Your task to perform on an android device: turn off picture-in-picture Image 0: 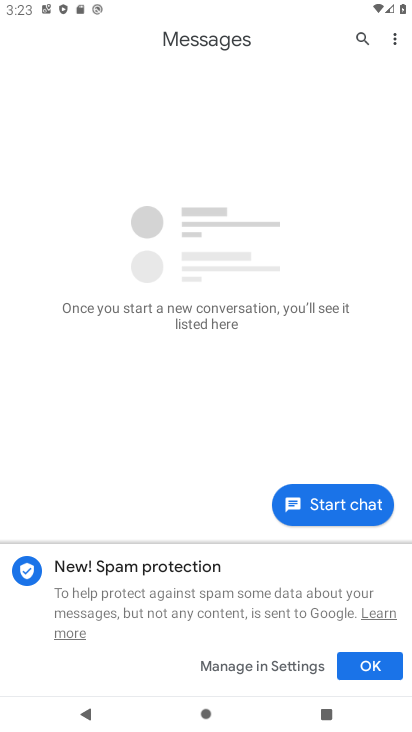
Step 0: press home button
Your task to perform on an android device: turn off picture-in-picture Image 1: 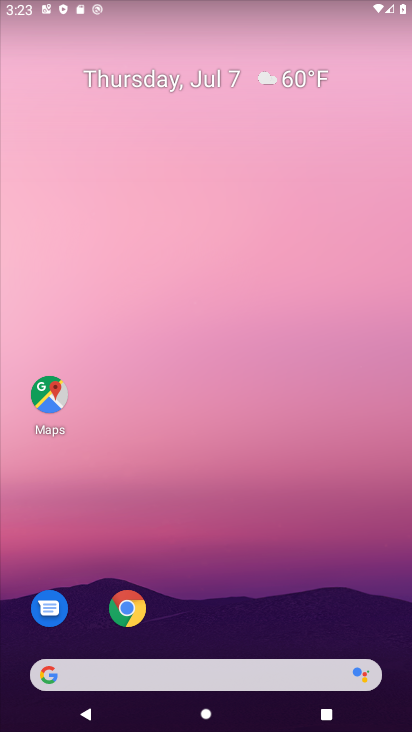
Step 1: click (127, 608)
Your task to perform on an android device: turn off picture-in-picture Image 2: 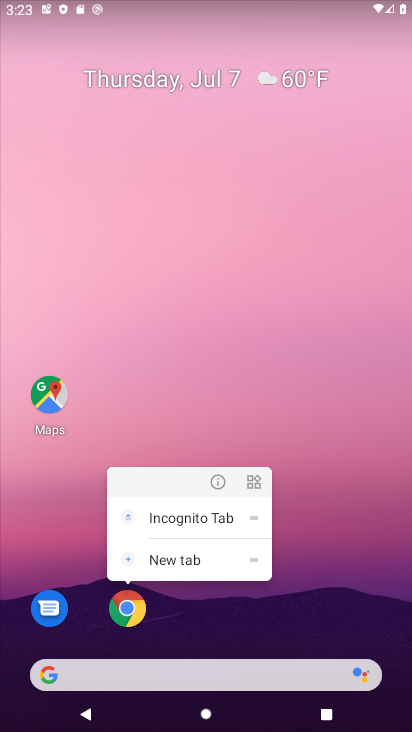
Step 2: click (221, 489)
Your task to perform on an android device: turn off picture-in-picture Image 3: 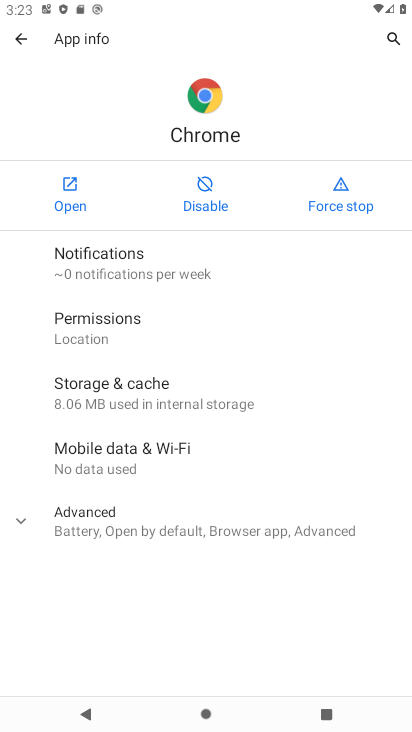
Step 3: click (145, 521)
Your task to perform on an android device: turn off picture-in-picture Image 4: 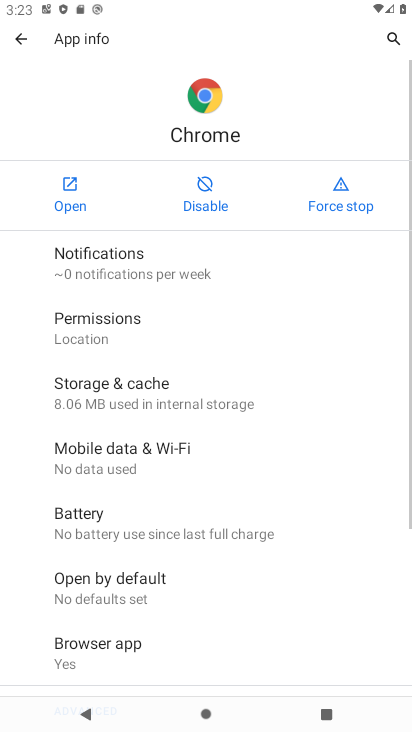
Step 4: drag from (166, 612) to (151, 129)
Your task to perform on an android device: turn off picture-in-picture Image 5: 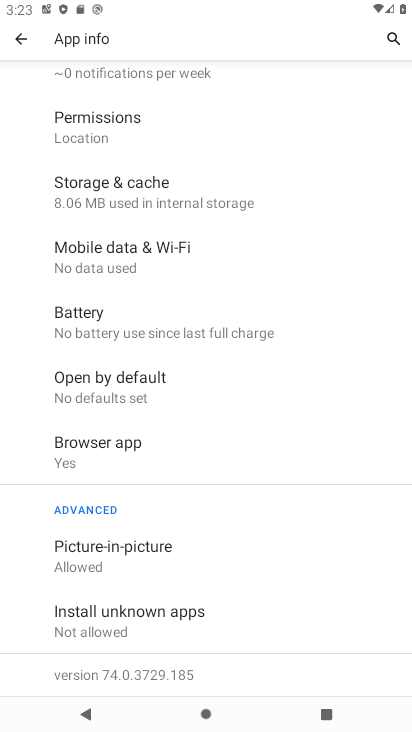
Step 5: click (137, 572)
Your task to perform on an android device: turn off picture-in-picture Image 6: 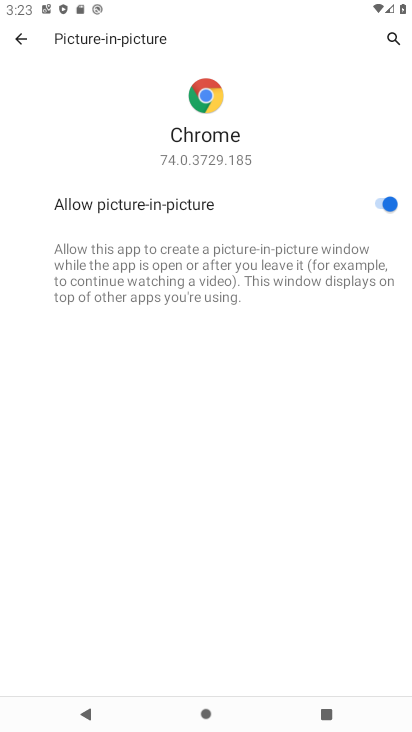
Step 6: click (380, 210)
Your task to perform on an android device: turn off picture-in-picture Image 7: 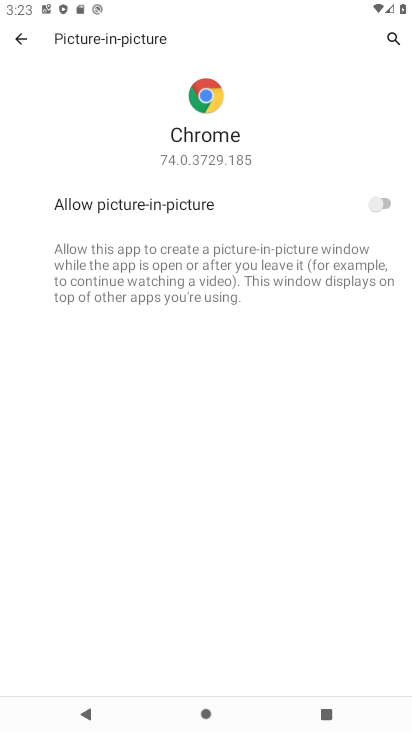
Step 7: task complete